Your task to perform on an android device: Search for seafood restaurants on Google Maps Image 0: 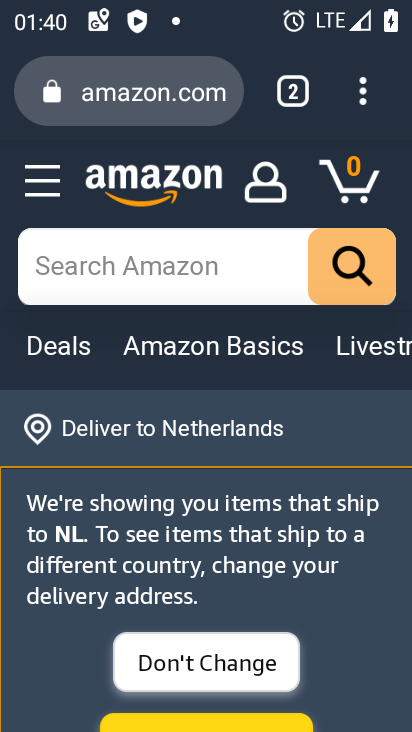
Step 0: press home button
Your task to perform on an android device: Search for seafood restaurants on Google Maps Image 1: 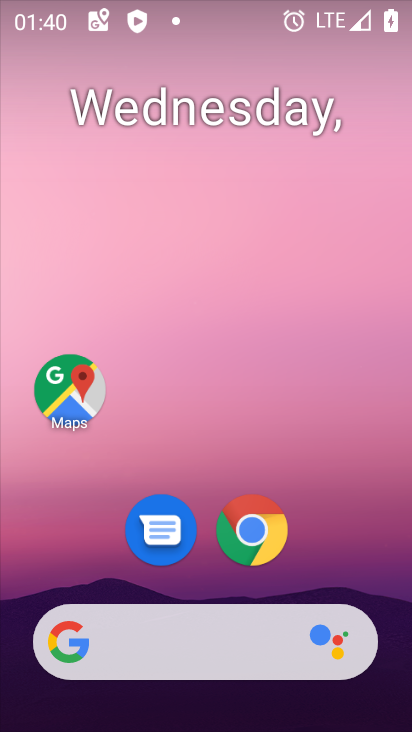
Step 1: drag from (384, 563) to (337, 103)
Your task to perform on an android device: Search for seafood restaurants on Google Maps Image 2: 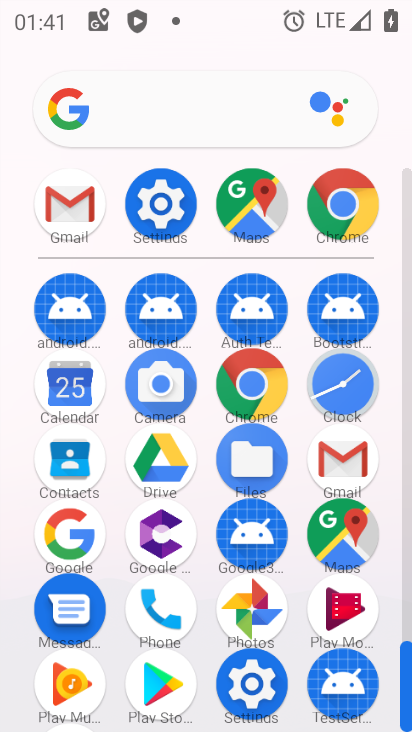
Step 2: click (348, 552)
Your task to perform on an android device: Search for seafood restaurants on Google Maps Image 3: 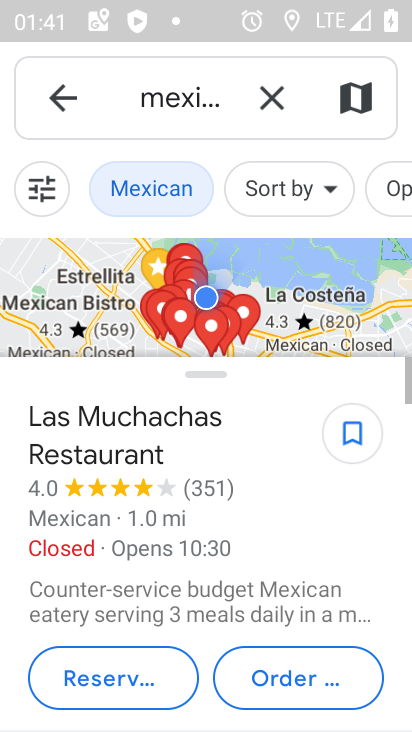
Step 3: click (266, 106)
Your task to perform on an android device: Search for seafood restaurants on Google Maps Image 4: 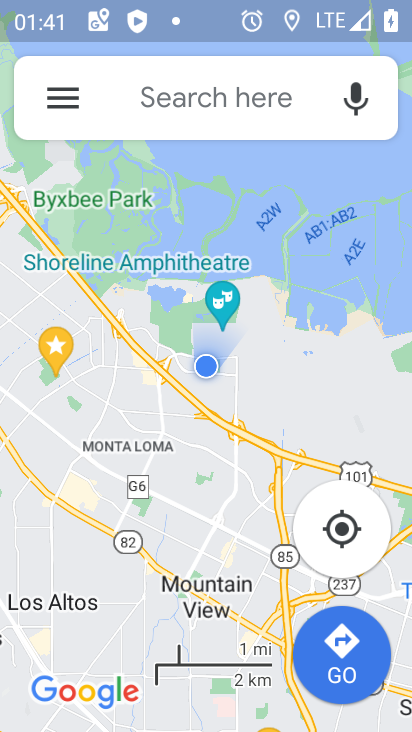
Step 4: click (245, 96)
Your task to perform on an android device: Search for seafood restaurants on Google Maps Image 5: 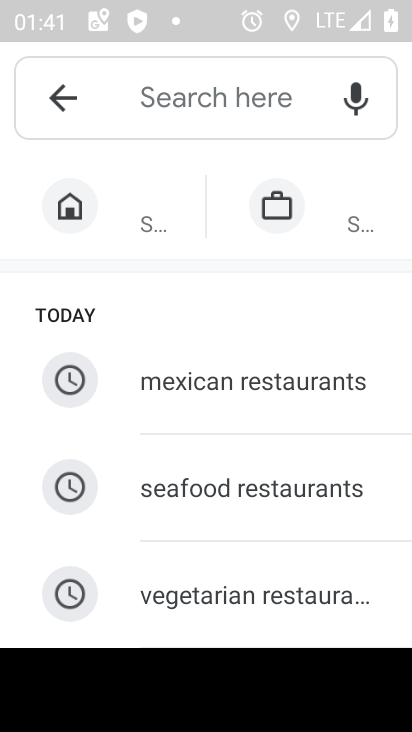
Step 5: click (299, 495)
Your task to perform on an android device: Search for seafood restaurants on Google Maps Image 6: 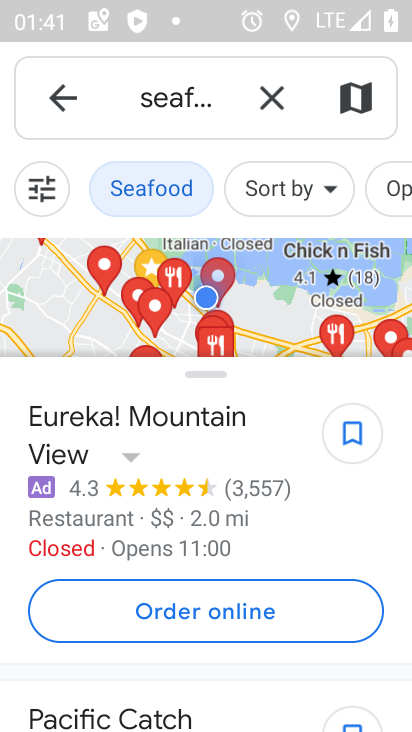
Step 6: task complete